Your task to perform on an android device: turn on wifi Image 0: 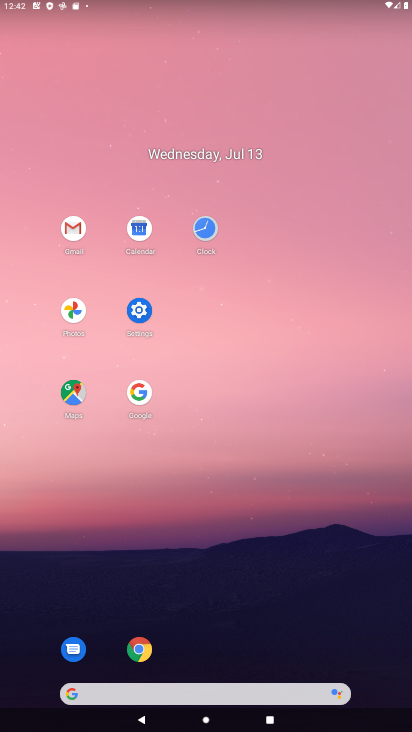
Step 0: click (138, 303)
Your task to perform on an android device: turn on wifi Image 1: 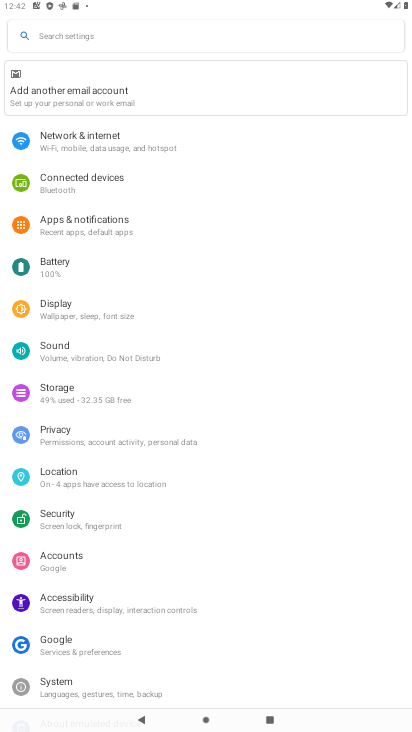
Step 1: click (161, 144)
Your task to perform on an android device: turn on wifi Image 2: 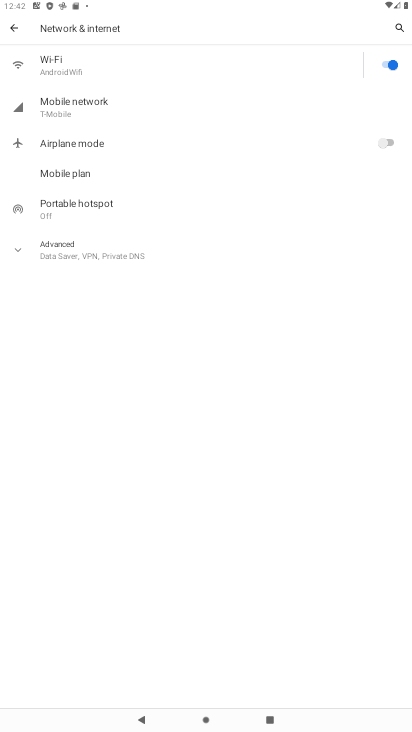
Step 2: task complete